Your task to perform on an android device: delete a single message in the gmail app Image 0: 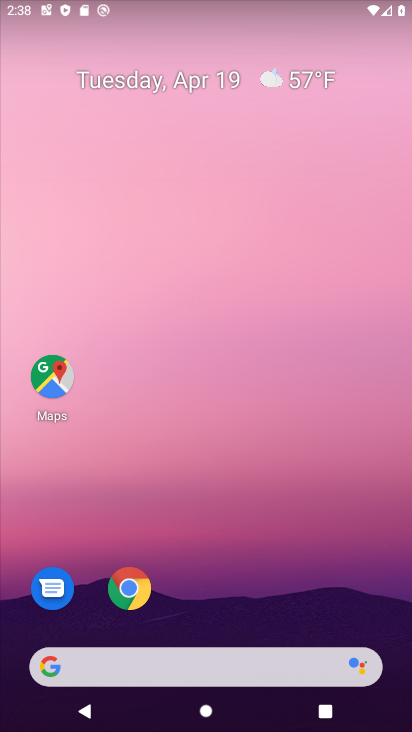
Step 0: drag from (326, 510) to (389, 64)
Your task to perform on an android device: delete a single message in the gmail app Image 1: 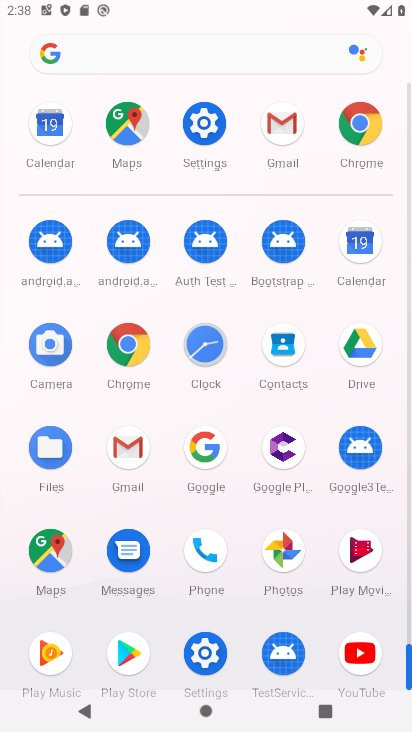
Step 1: click (288, 125)
Your task to perform on an android device: delete a single message in the gmail app Image 2: 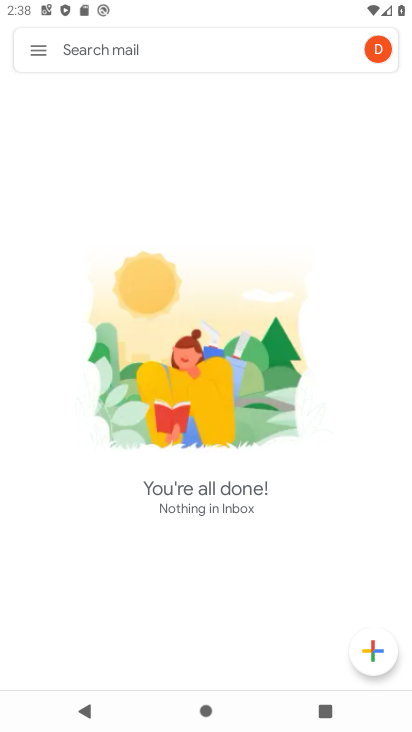
Step 2: click (40, 46)
Your task to perform on an android device: delete a single message in the gmail app Image 3: 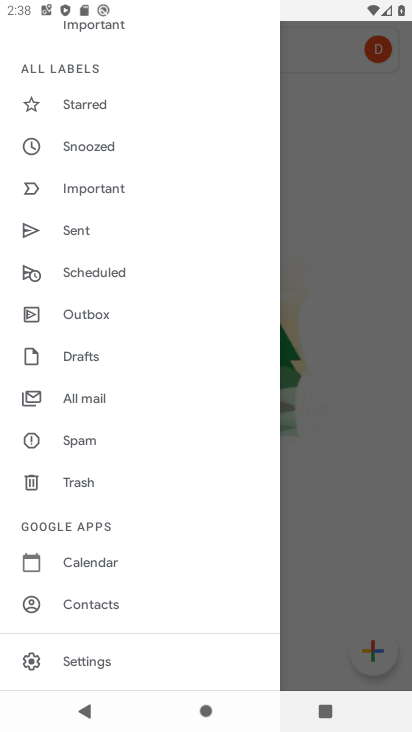
Step 3: click (99, 390)
Your task to perform on an android device: delete a single message in the gmail app Image 4: 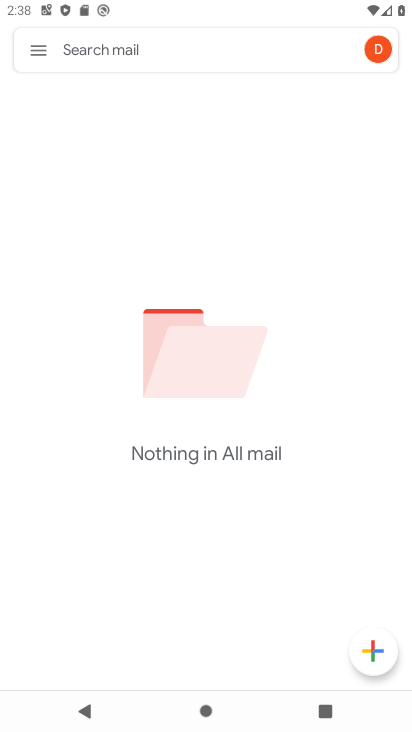
Step 4: task complete